Your task to perform on an android device: turn off javascript in the chrome app Image 0: 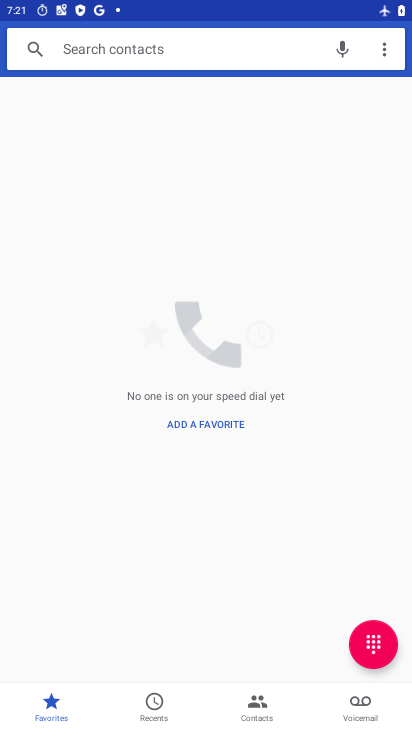
Step 0: press home button
Your task to perform on an android device: turn off javascript in the chrome app Image 1: 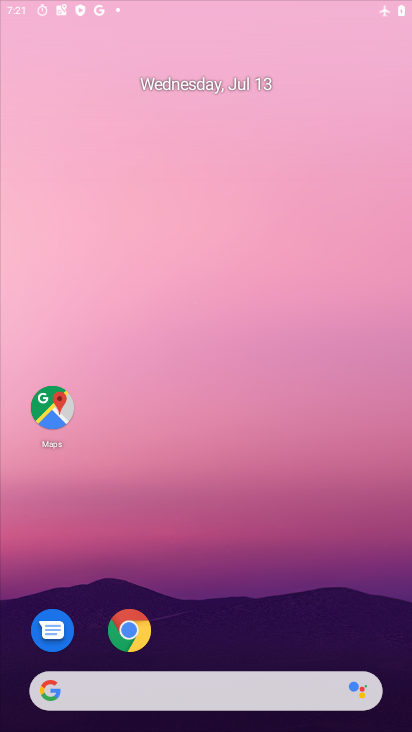
Step 1: drag from (174, 672) to (192, 42)
Your task to perform on an android device: turn off javascript in the chrome app Image 2: 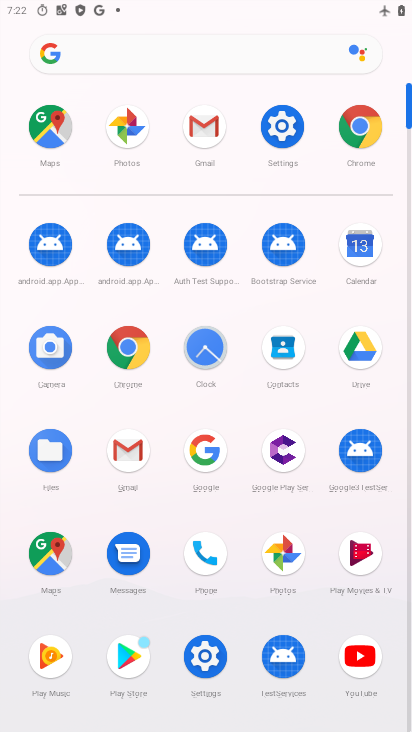
Step 2: click (338, 127)
Your task to perform on an android device: turn off javascript in the chrome app Image 3: 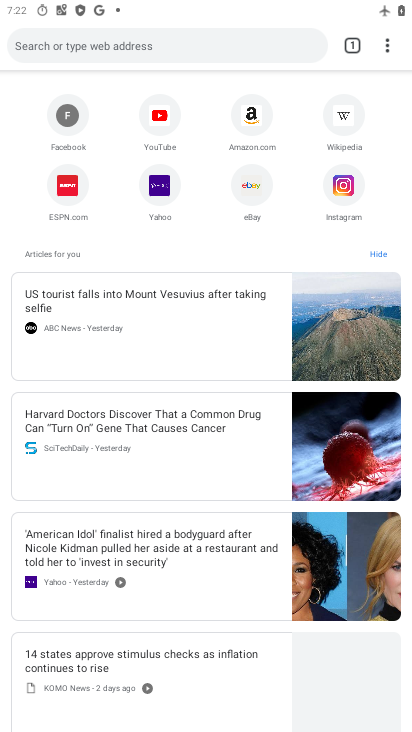
Step 3: click (385, 38)
Your task to perform on an android device: turn off javascript in the chrome app Image 4: 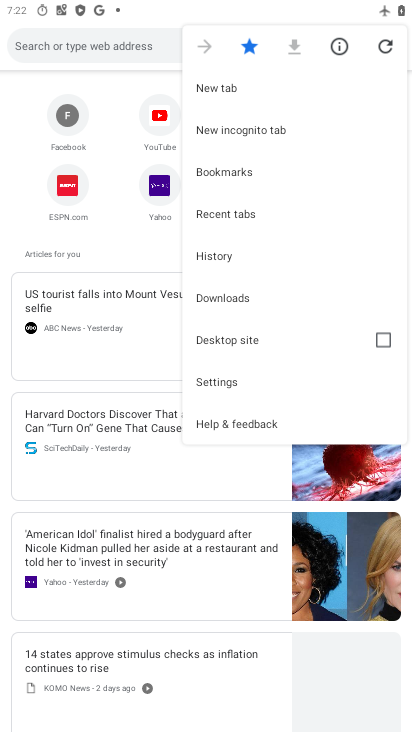
Step 4: click (223, 378)
Your task to perform on an android device: turn off javascript in the chrome app Image 5: 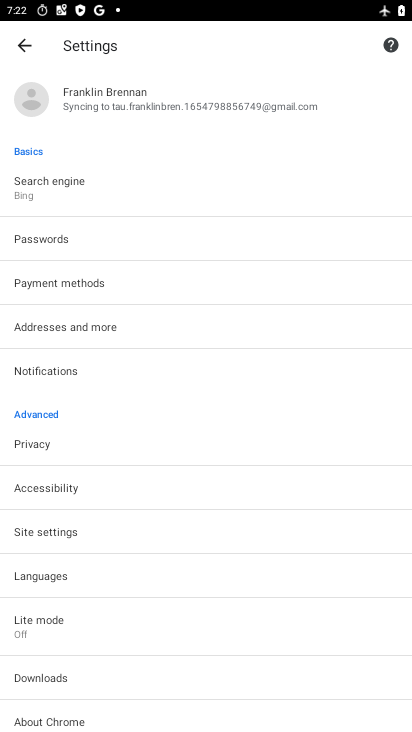
Step 5: click (70, 544)
Your task to perform on an android device: turn off javascript in the chrome app Image 6: 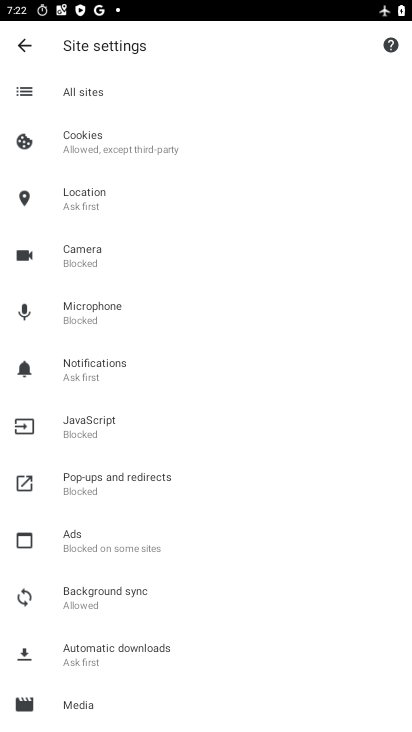
Step 6: click (103, 437)
Your task to perform on an android device: turn off javascript in the chrome app Image 7: 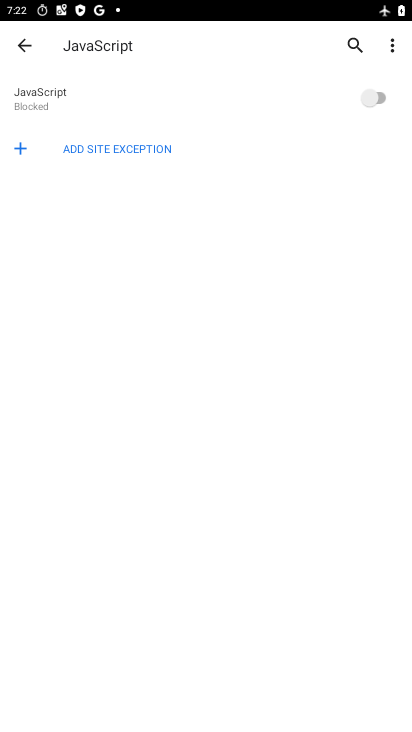
Step 7: task complete